Your task to perform on an android device: Open the map Image 0: 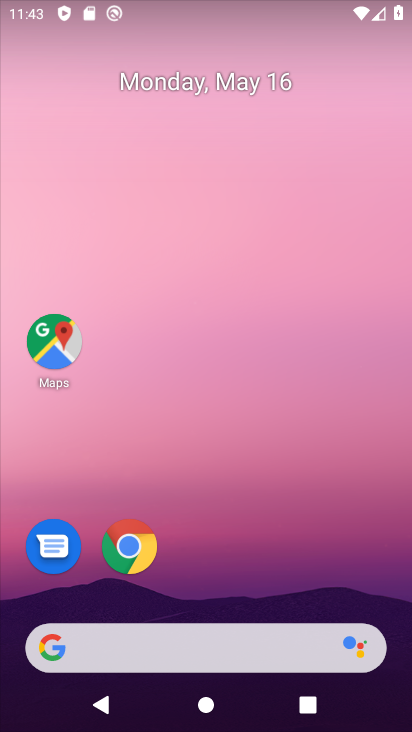
Step 0: click (55, 342)
Your task to perform on an android device: Open the map Image 1: 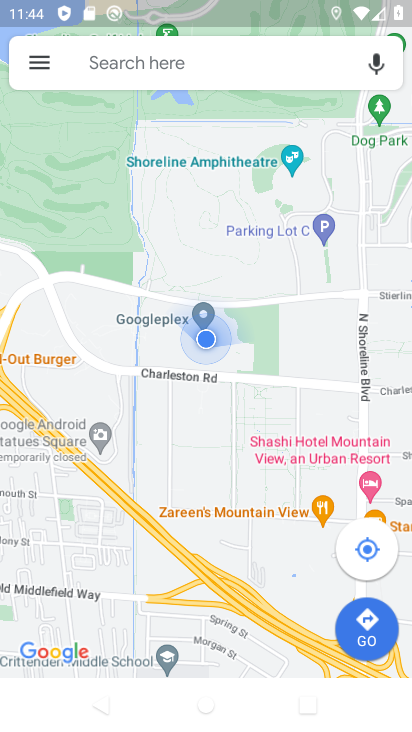
Step 1: task complete